Your task to perform on an android device: install app "McDonald's" Image 0: 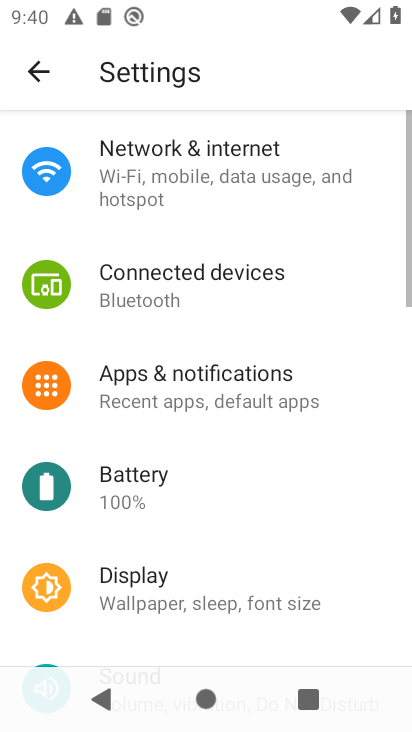
Step 0: press home button
Your task to perform on an android device: install app "McDonald's" Image 1: 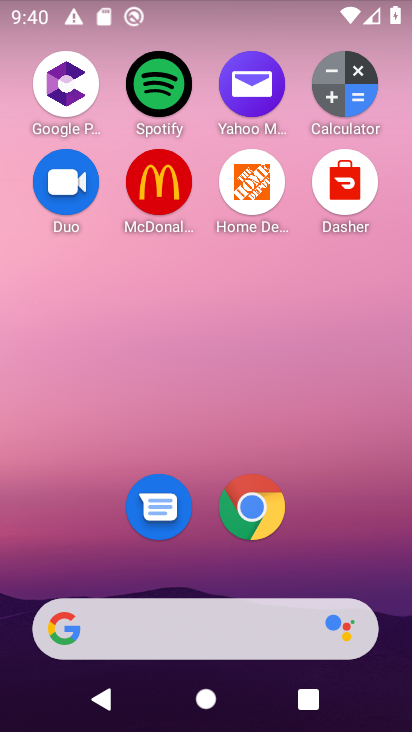
Step 1: drag from (390, 644) to (382, 180)
Your task to perform on an android device: install app "McDonald's" Image 2: 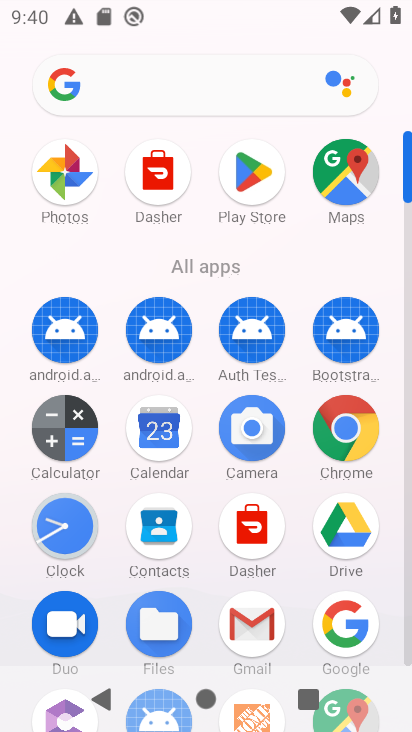
Step 2: drag from (295, 636) to (295, 375)
Your task to perform on an android device: install app "McDonald's" Image 3: 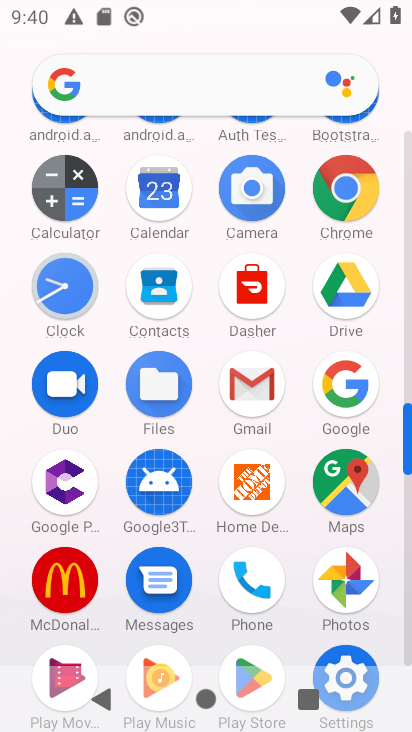
Step 3: drag from (301, 544) to (300, 339)
Your task to perform on an android device: install app "McDonald's" Image 4: 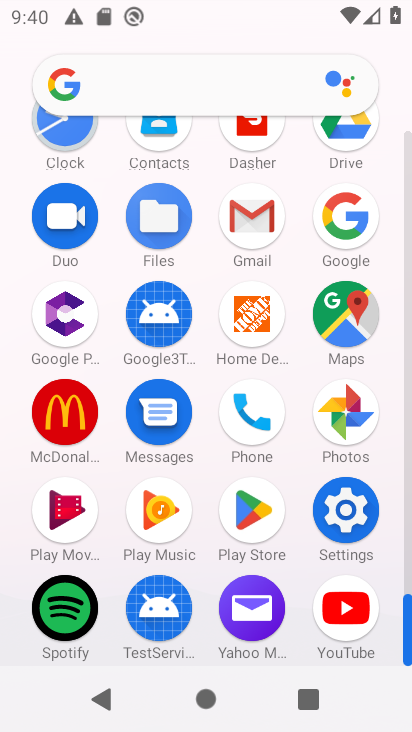
Step 4: click (62, 416)
Your task to perform on an android device: install app "McDonald's" Image 5: 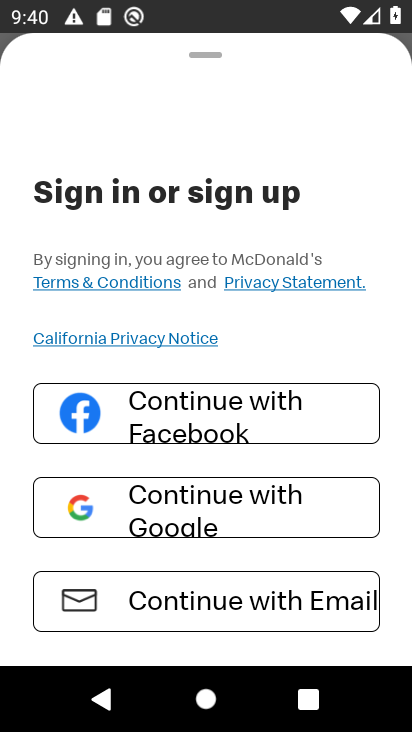
Step 5: task complete